Your task to perform on an android device: open a bookmark in the chrome app Image 0: 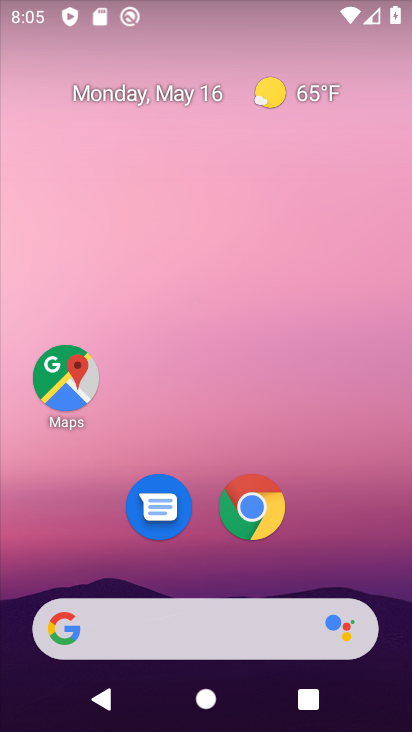
Step 0: drag from (220, 584) to (136, 28)
Your task to perform on an android device: open a bookmark in the chrome app Image 1: 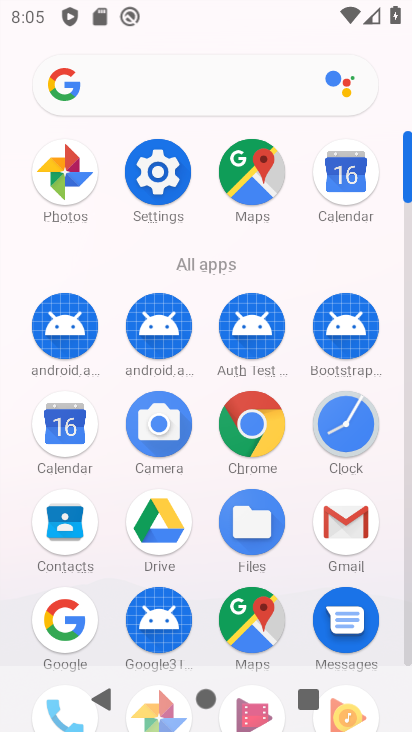
Step 1: click (266, 414)
Your task to perform on an android device: open a bookmark in the chrome app Image 2: 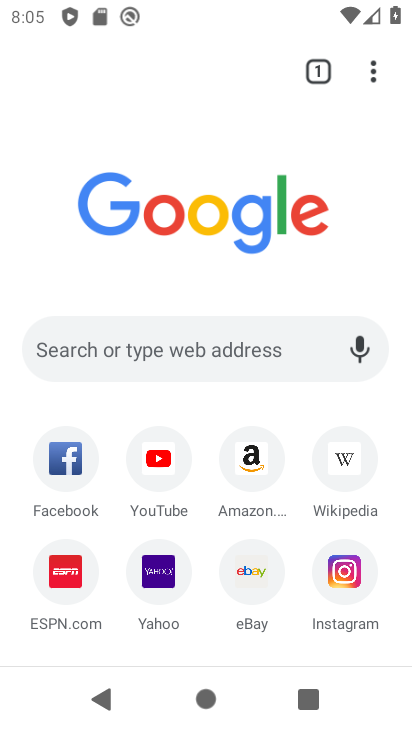
Step 2: click (372, 75)
Your task to perform on an android device: open a bookmark in the chrome app Image 3: 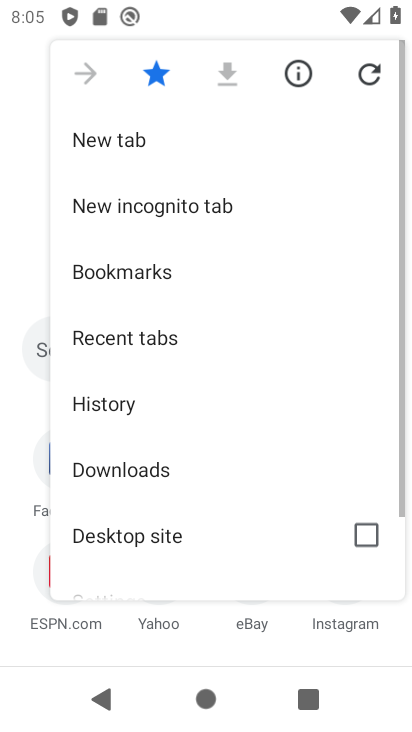
Step 3: click (121, 276)
Your task to perform on an android device: open a bookmark in the chrome app Image 4: 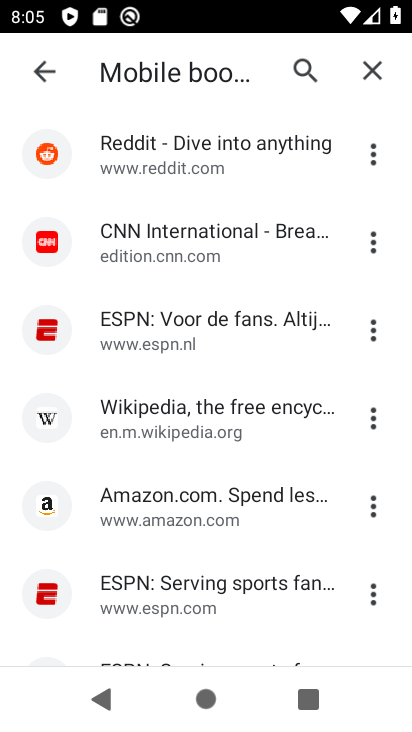
Step 4: task complete